Your task to perform on an android device: install app "Microsoft Excel" Image 0: 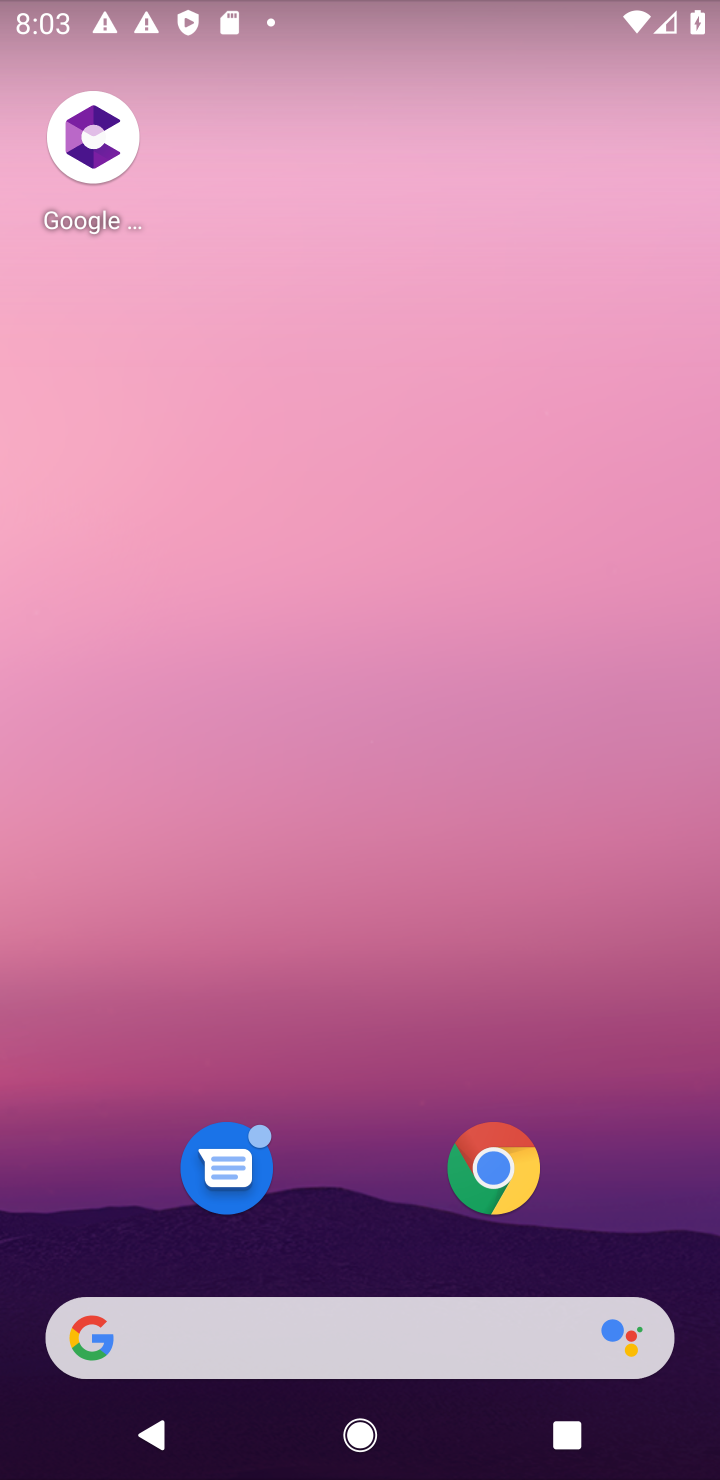
Step 0: drag from (337, 1082) to (487, 391)
Your task to perform on an android device: install app "Microsoft Excel" Image 1: 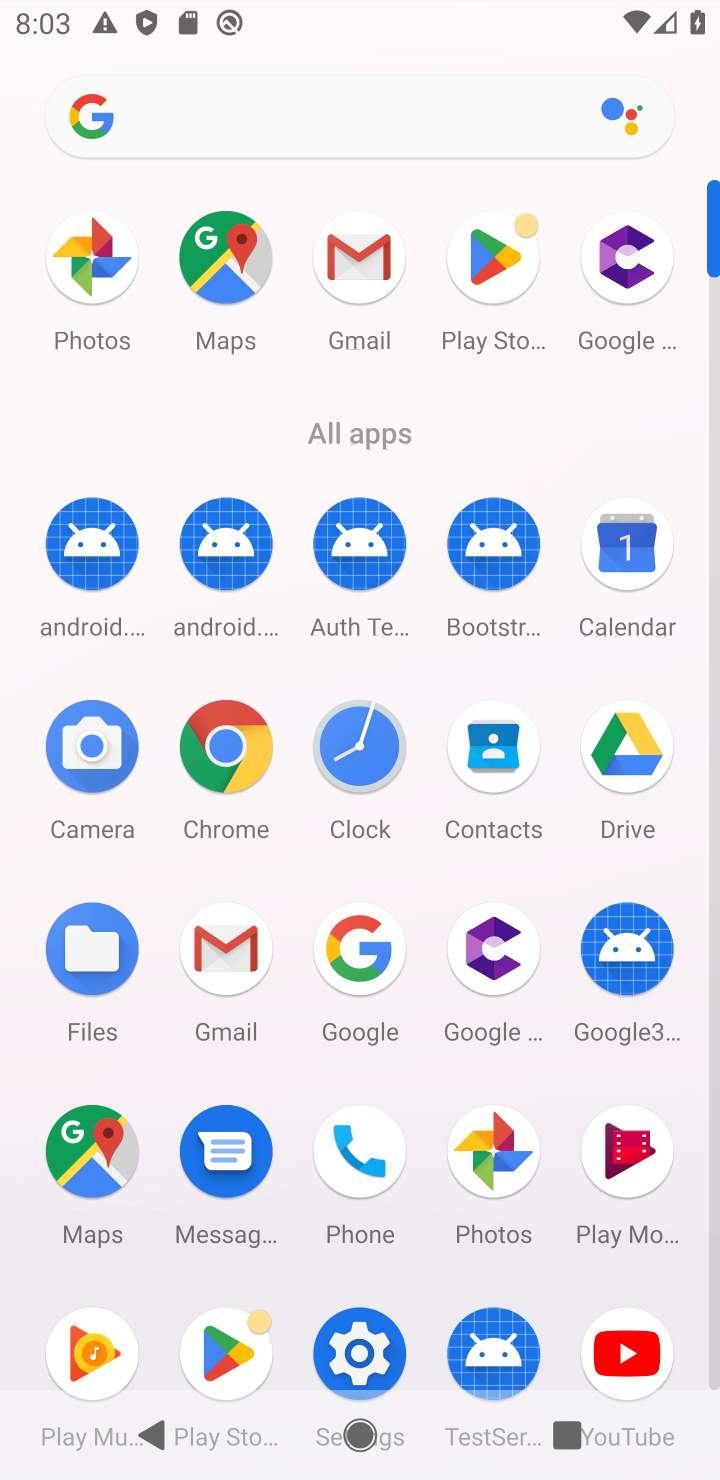
Step 1: click (503, 266)
Your task to perform on an android device: install app "Microsoft Excel" Image 2: 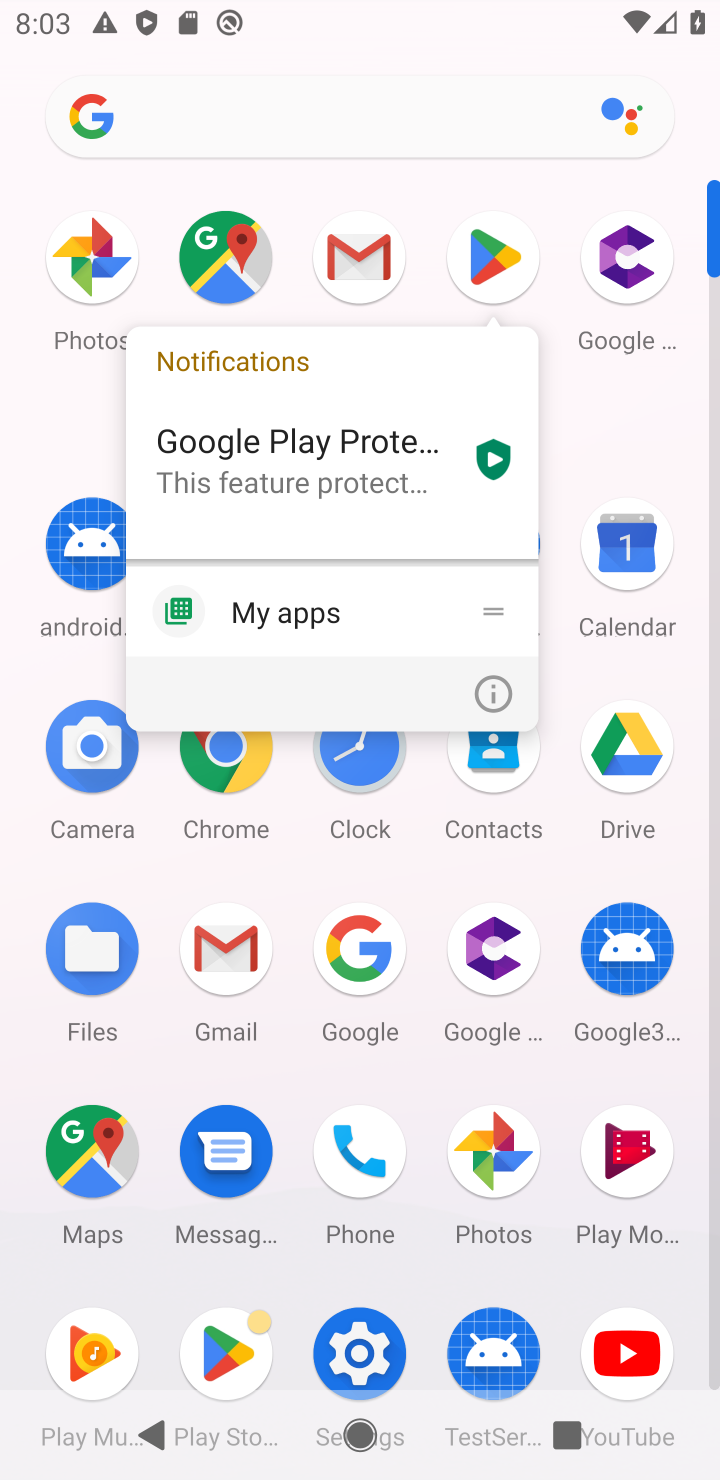
Step 2: click (503, 271)
Your task to perform on an android device: install app "Microsoft Excel" Image 3: 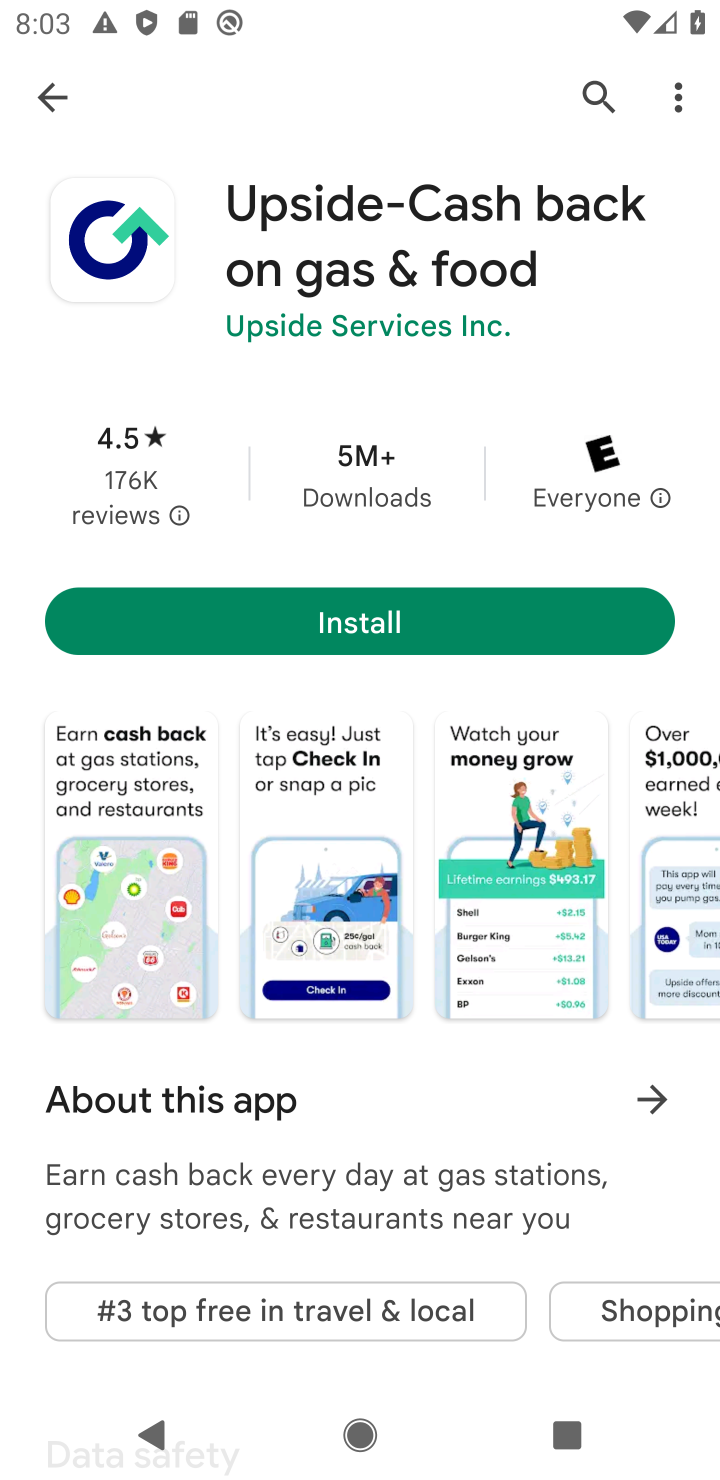
Step 3: press back button
Your task to perform on an android device: install app "Microsoft Excel" Image 4: 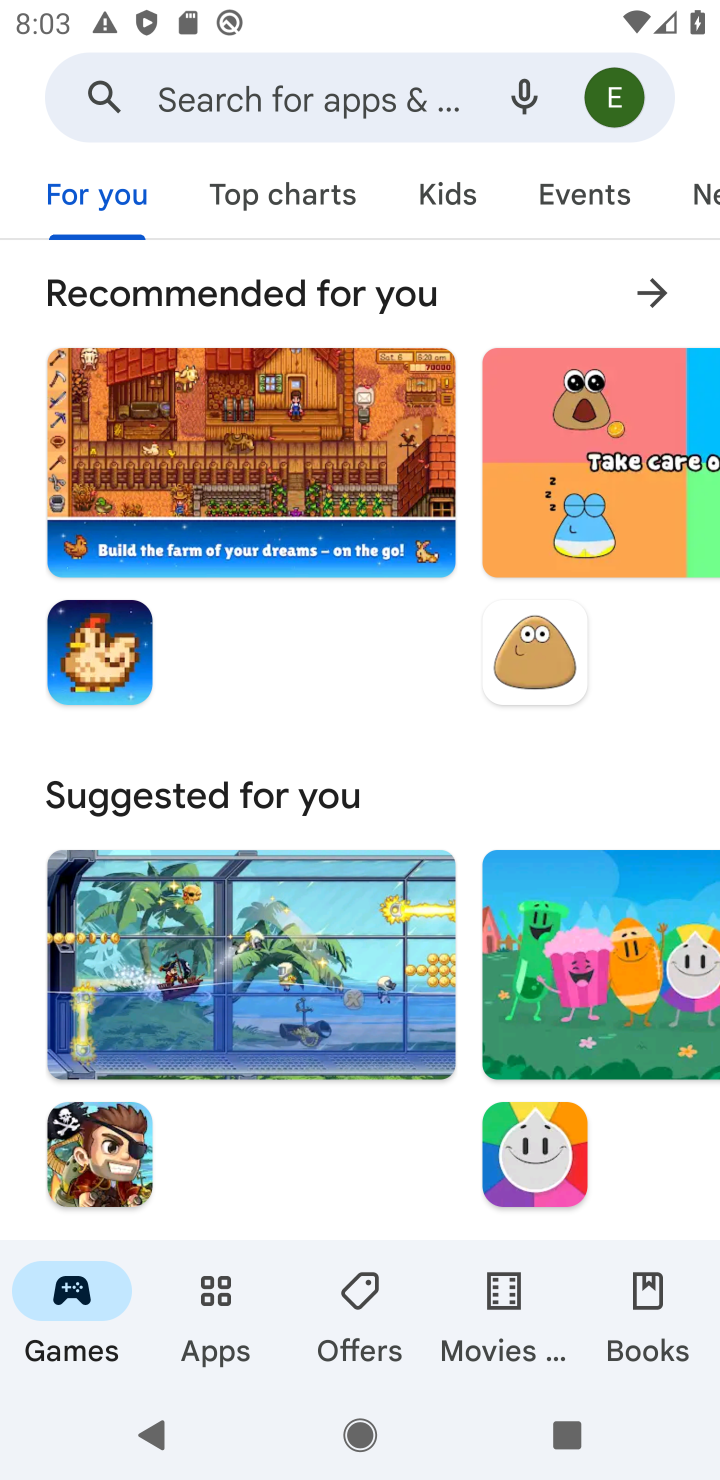
Step 4: click (272, 87)
Your task to perform on an android device: install app "Microsoft Excel" Image 5: 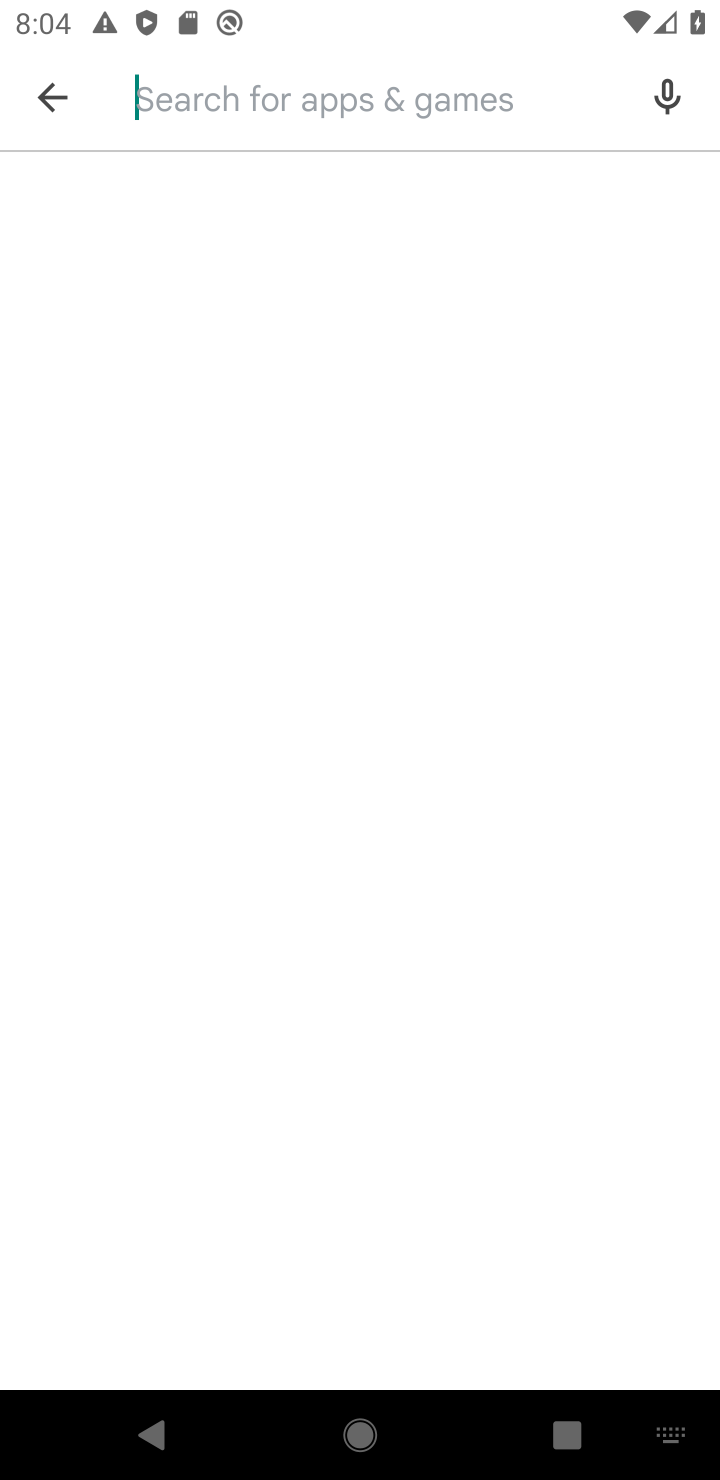
Step 5: type "microsoft excel"
Your task to perform on an android device: install app "Microsoft Excel" Image 6: 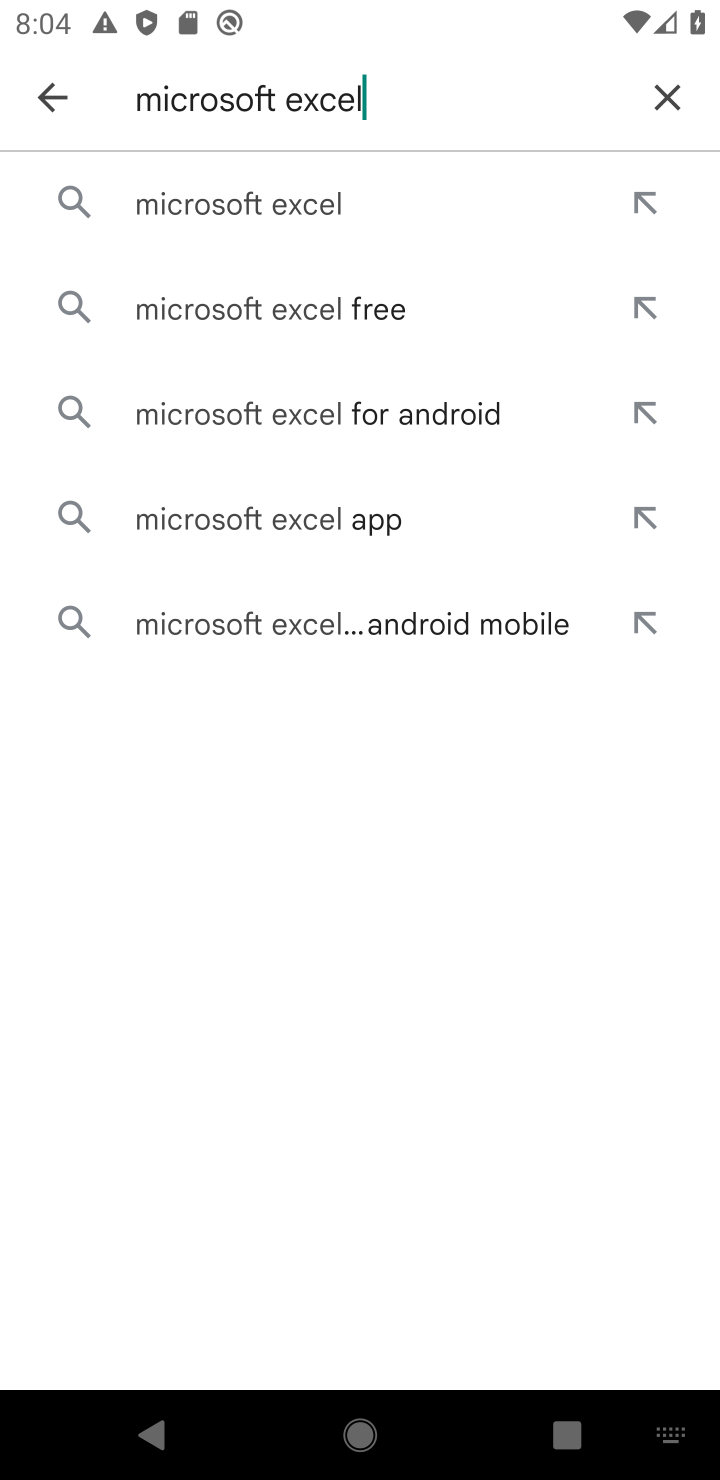
Step 6: click (275, 222)
Your task to perform on an android device: install app "Microsoft Excel" Image 7: 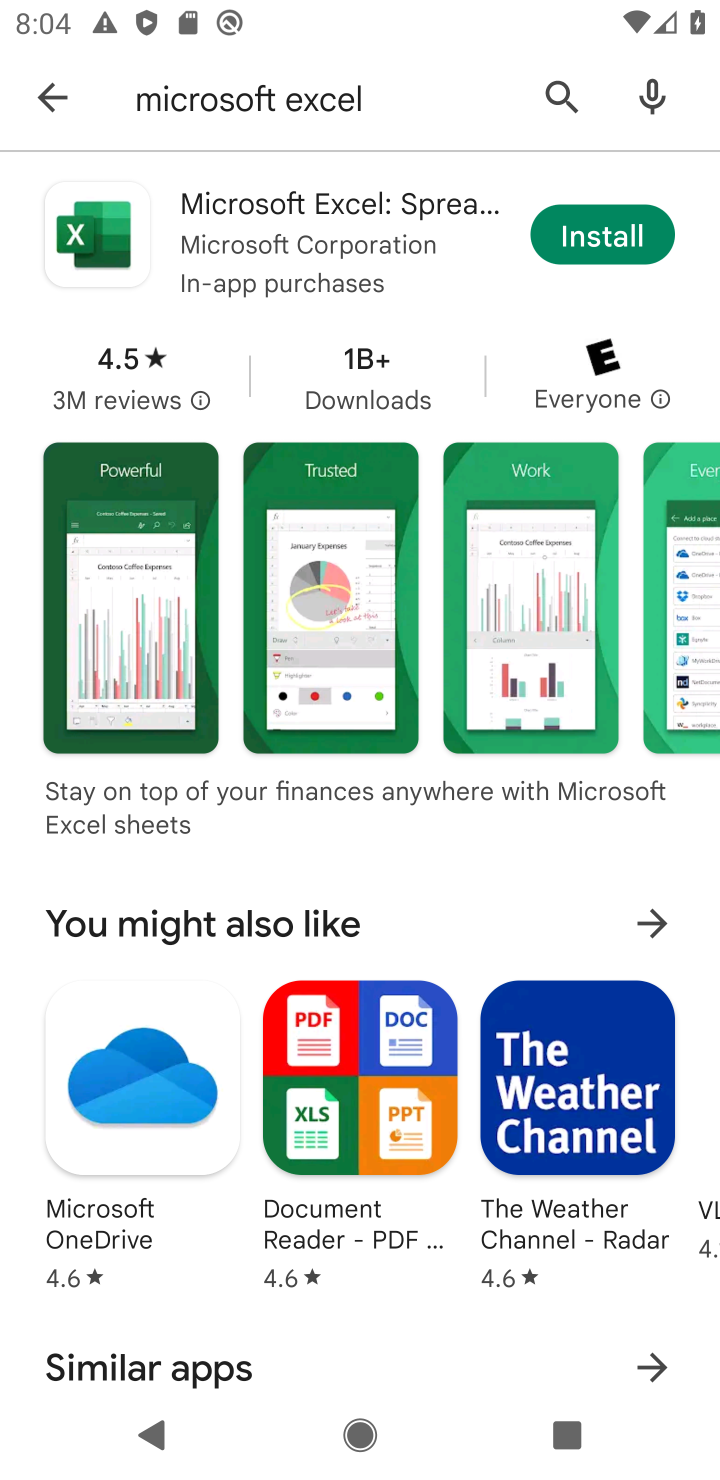
Step 7: click (567, 225)
Your task to perform on an android device: install app "Microsoft Excel" Image 8: 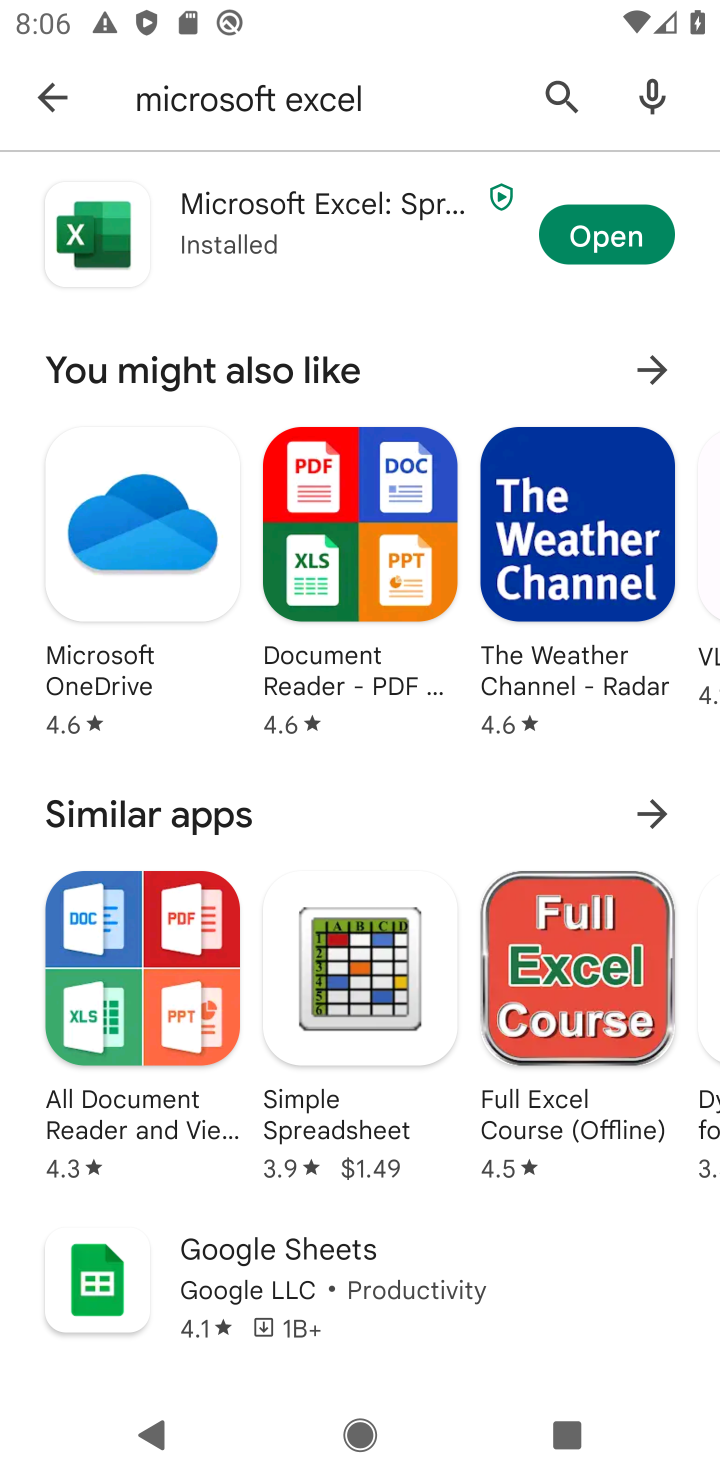
Step 8: task complete